Your task to perform on an android device: Open Yahoo.com Image 0: 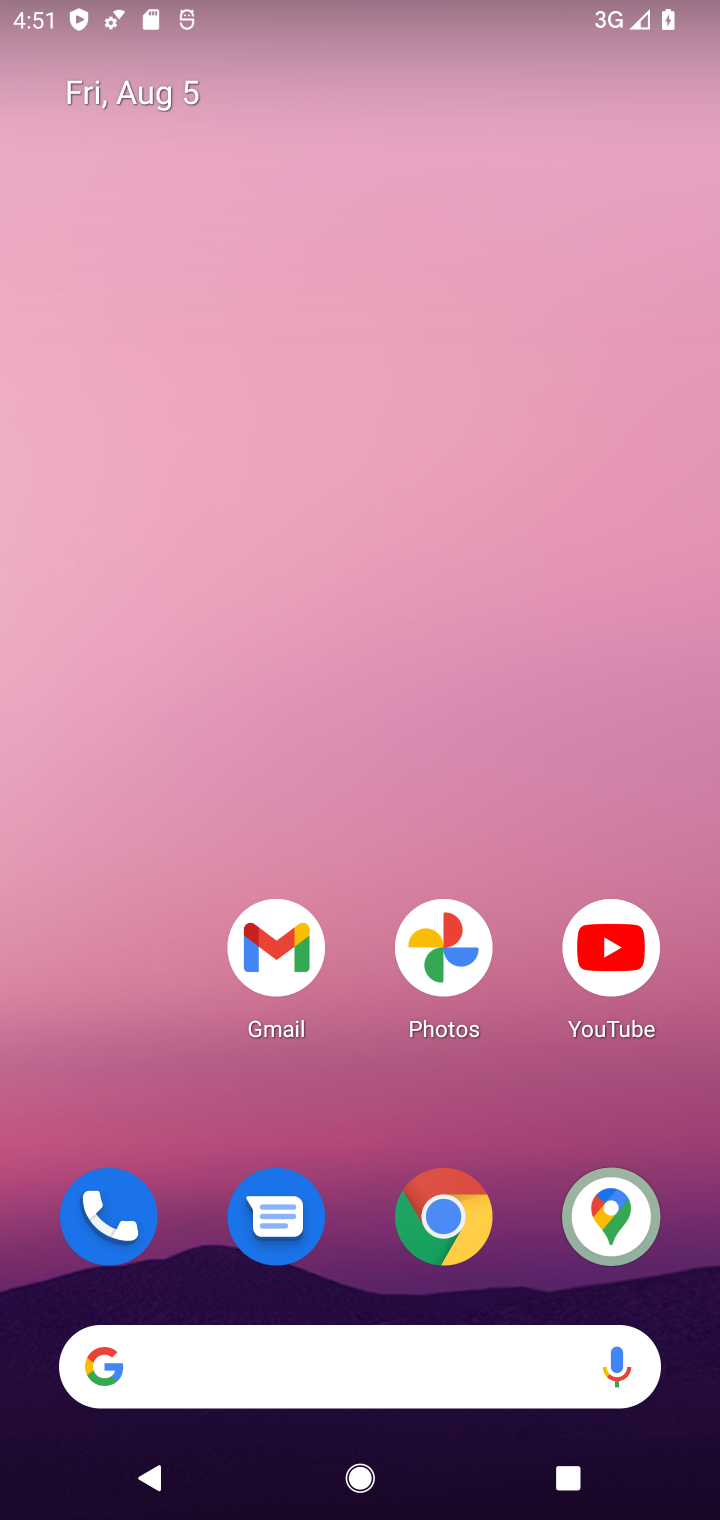
Step 0: click (463, 1230)
Your task to perform on an android device: Open Yahoo.com Image 1: 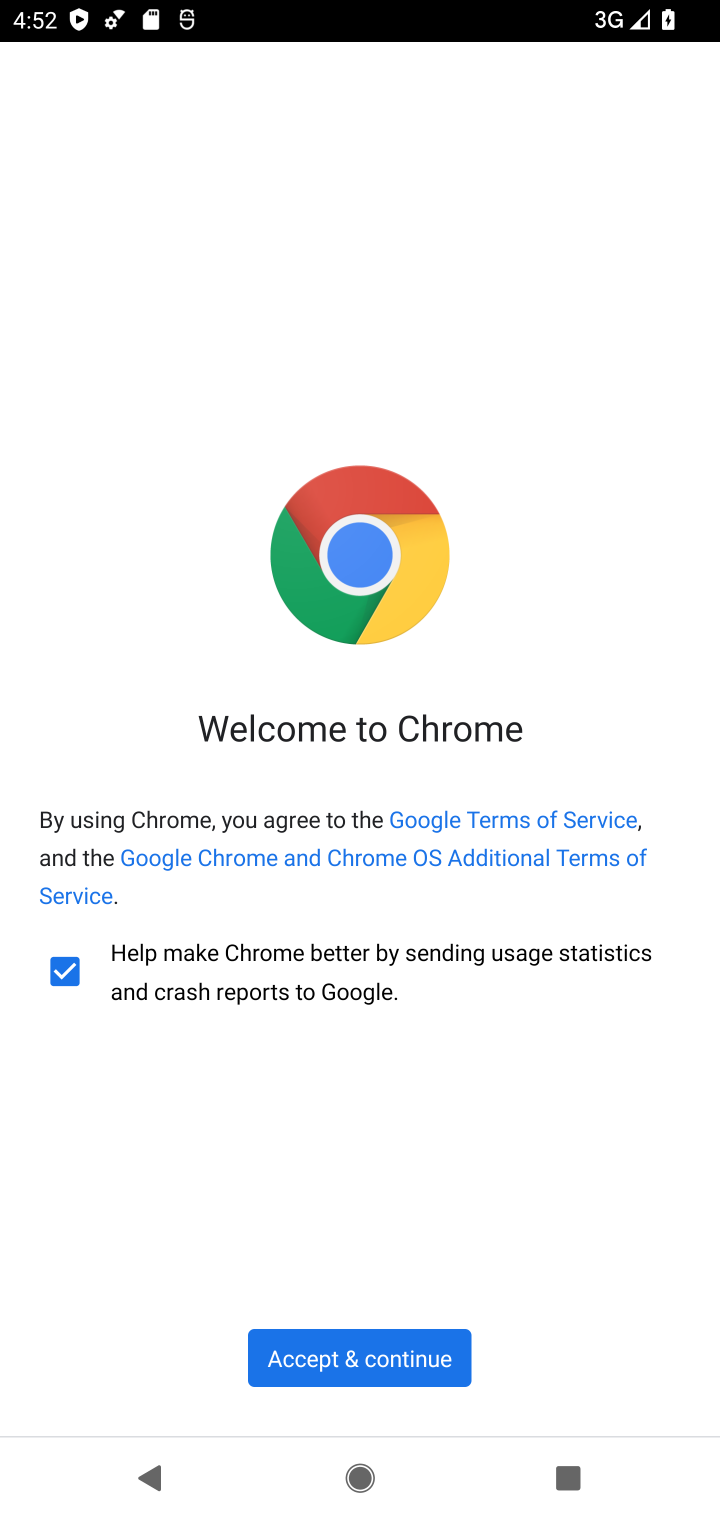
Step 1: click (355, 1360)
Your task to perform on an android device: Open Yahoo.com Image 2: 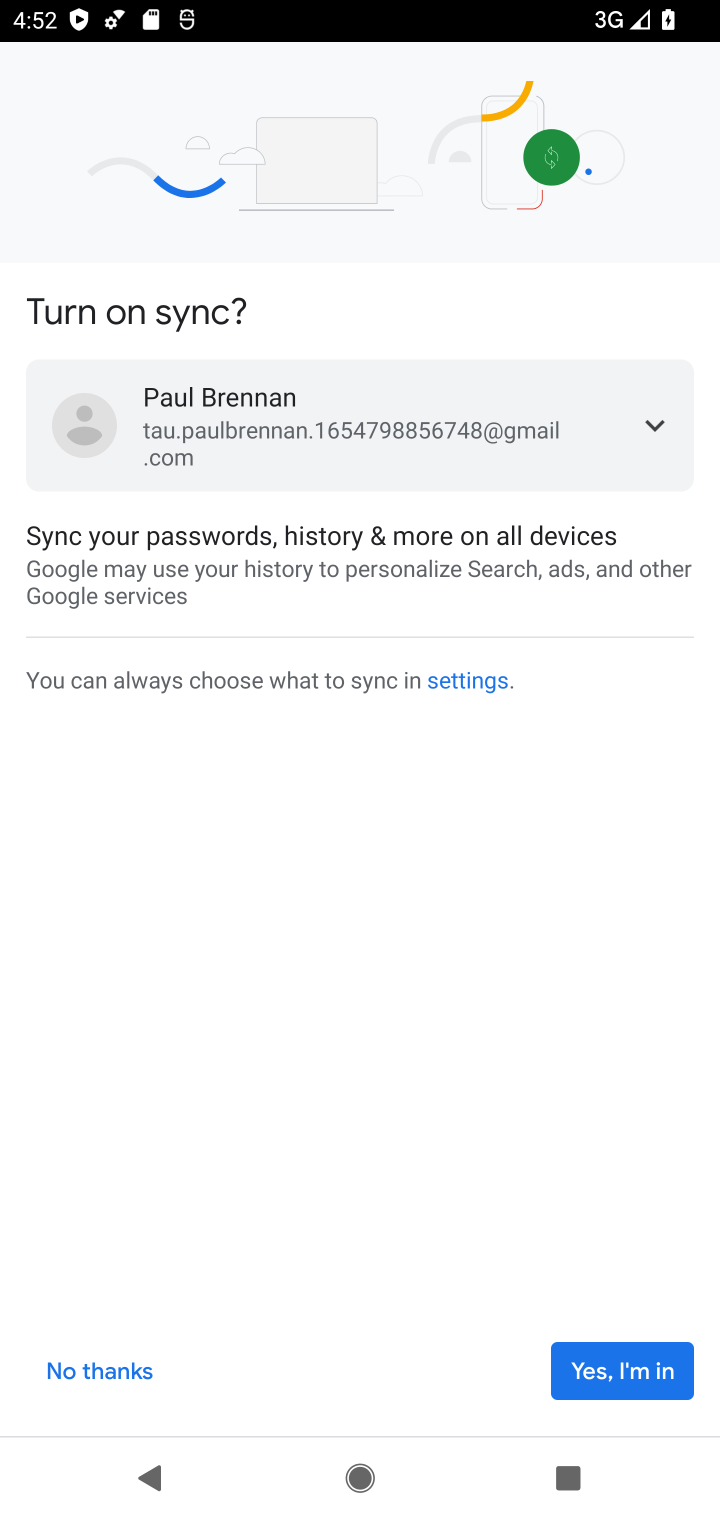
Step 2: click (637, 1360)
Your task to perform on an android device: Open Yahoo.com Image 3: 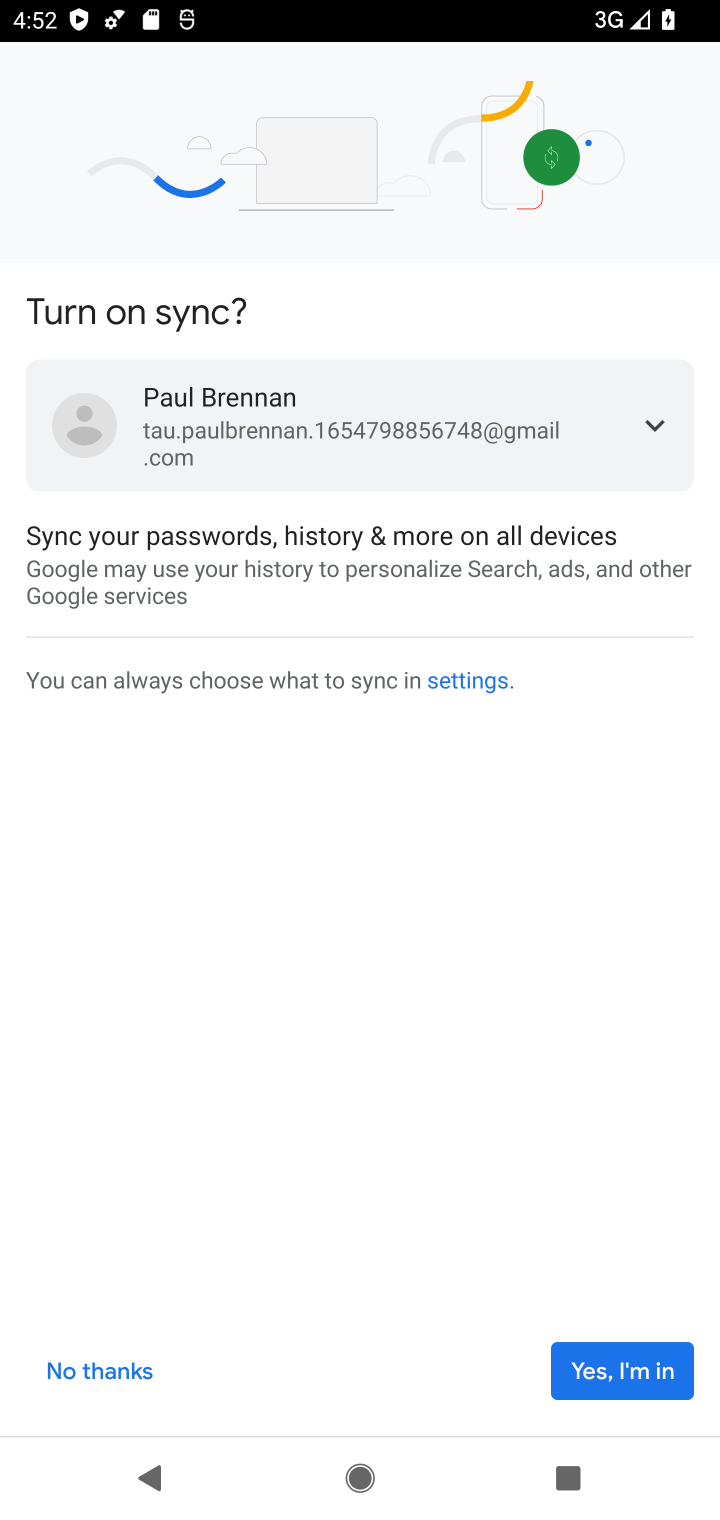
Step 3: click (589, 1367)
Your task to perform on an android device: Open Yahoo.com Image 4: 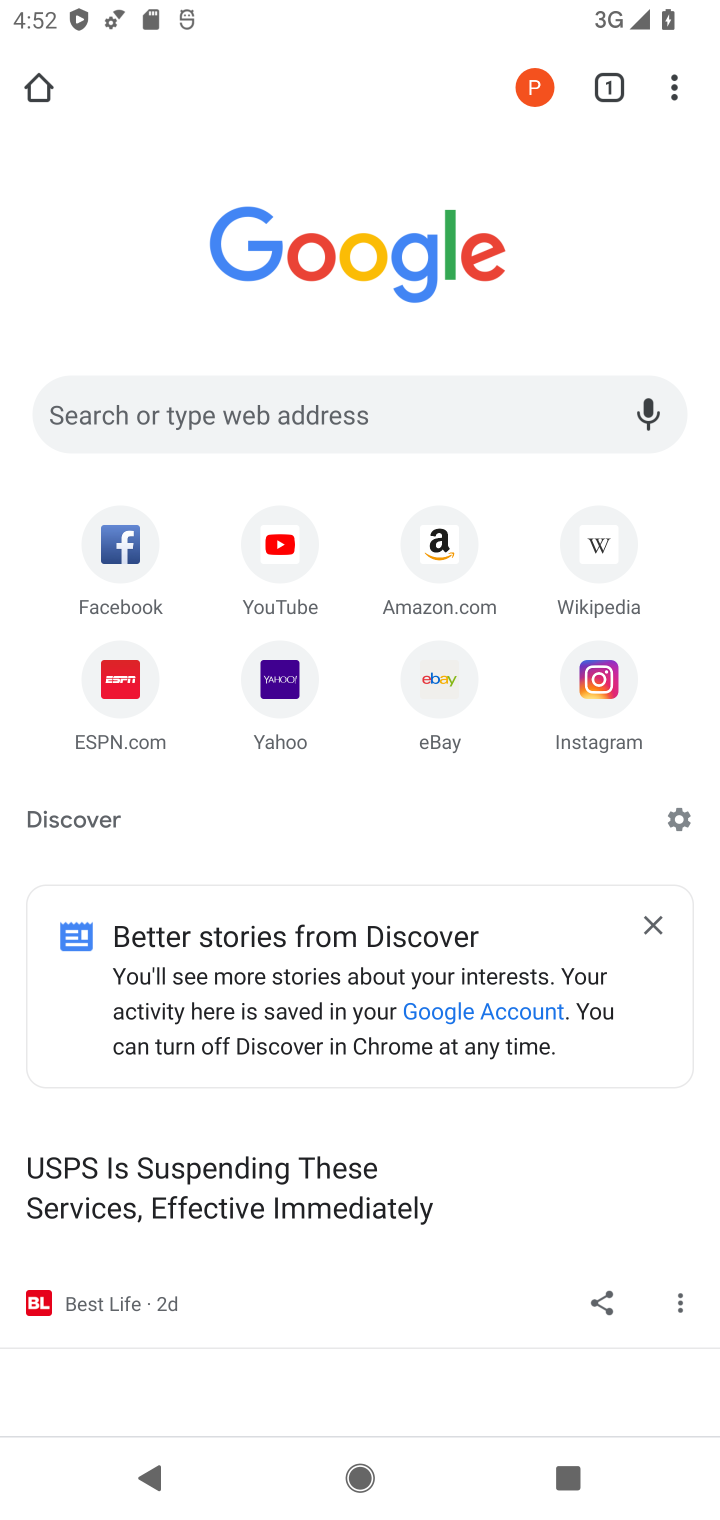
Step 4: click (278, 683)
Your task to perform on an android device: Open Yahoo.com Image 5: 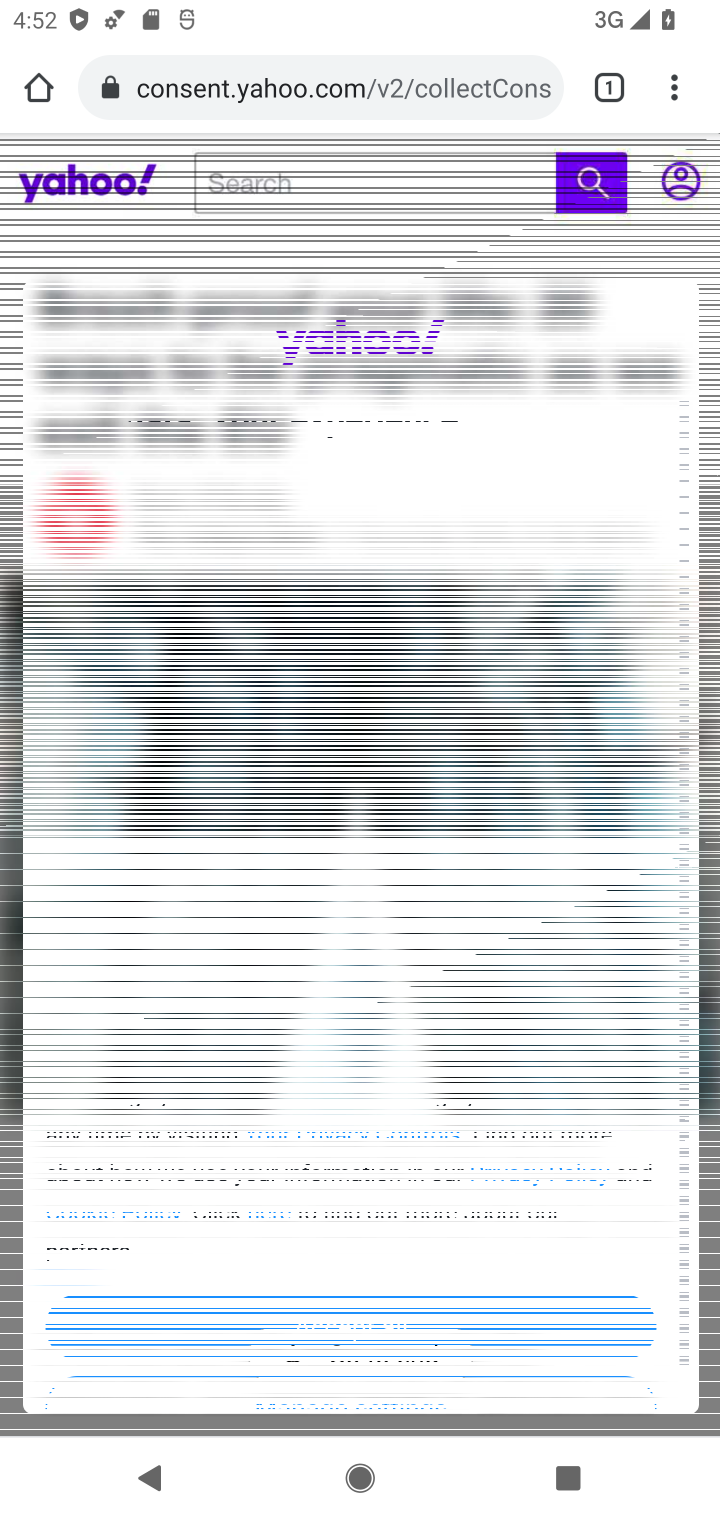
Step 5: task complete